Your task to perform on an android device: Open Youtube and go to the subscriptions tab Image 0: 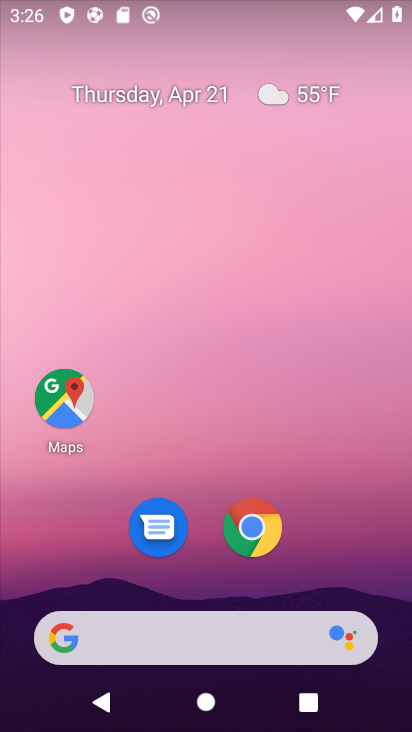
Step 0: drag from (366, 545) to (150, 149)
Your task to perform on an android device: Open Youtube and go to the subscriptions tab Image 1: 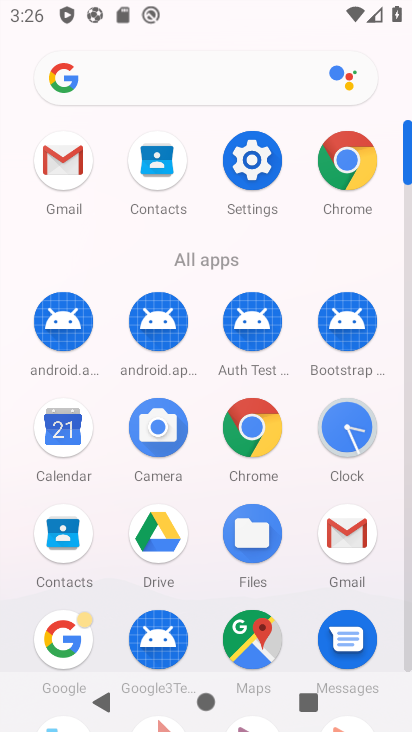
Step 1: click (410, 660)
Your task to perform on an android device: Open Youtube and go to the subscriptions tab Image 2: 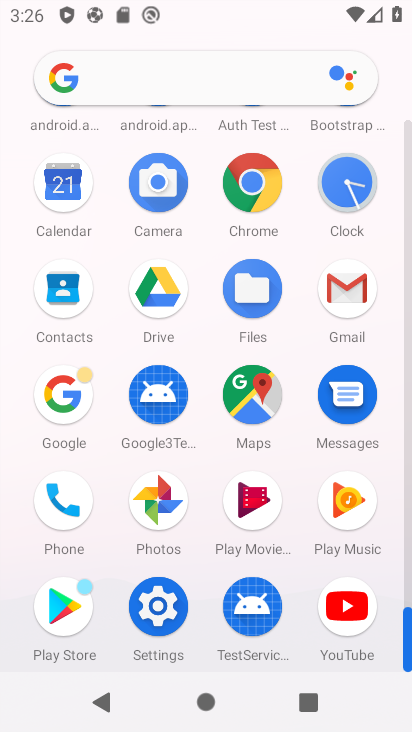
Step 2: click (346, 608)
Your task to perform on an android device: Open Youtube and go to the subscriptions tab Image 3: 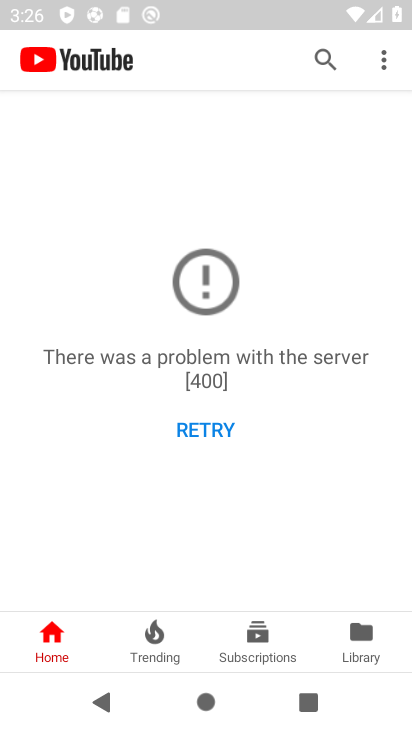
Step 3: click (270, 638)
Your task to perform on an android device: Open Youtube and go to the subscriptions tab Image 4: 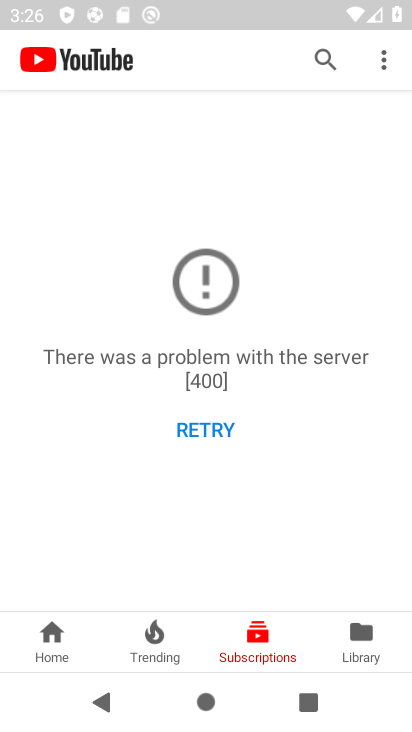
Step 4: task complete